Your task to perform on an android device: toggle improve location accuracy Image 0: 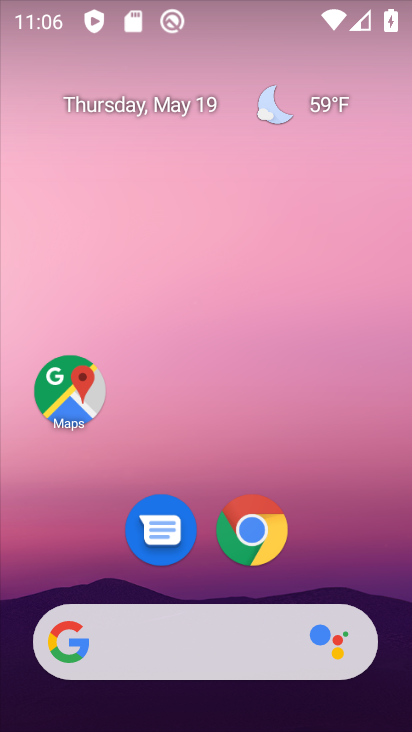
Step 0: drag from (313, 544) to (298, 153)
Your task to perform on an android device: toggle improve location accuracy Image 1: 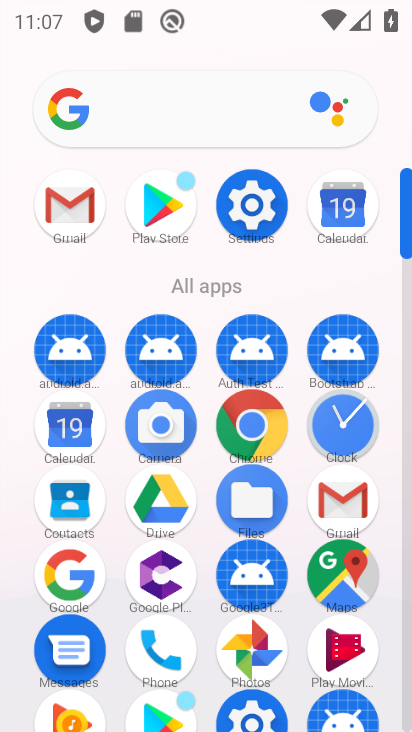
Step 1: click (246, 222)
Your task to perform on an android device: toggle improve location accuracy Image 2: 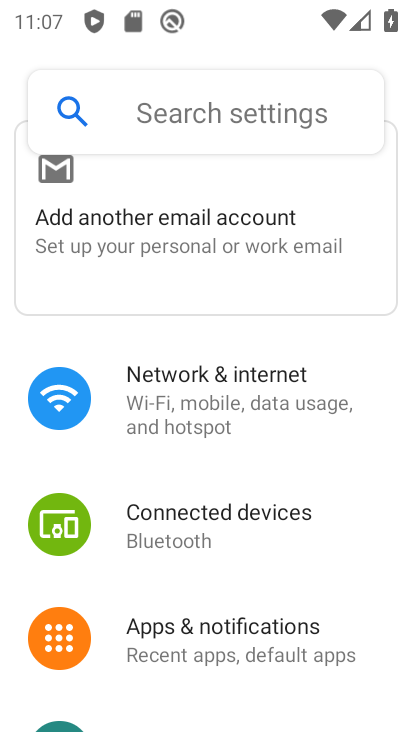
Step 2: drag from (233, 684) to (245, 332)
Your task to perform on an android device: toggle improve location accuracy Image 3: 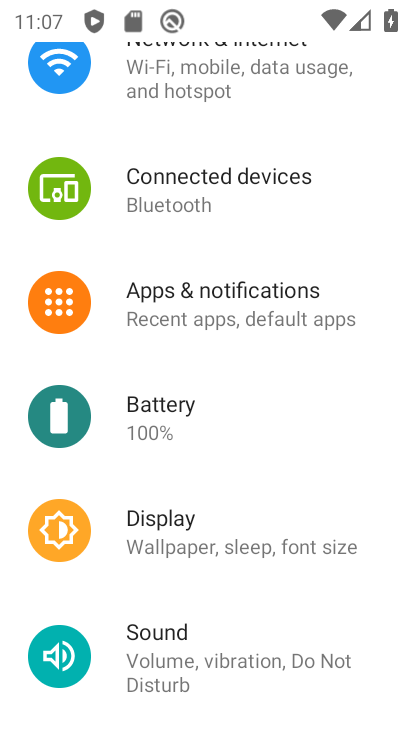
Step 3: drag from (232, 628) to (270, 222)
Your task to perform on an android device: toggle improve location accuracy Image 4: 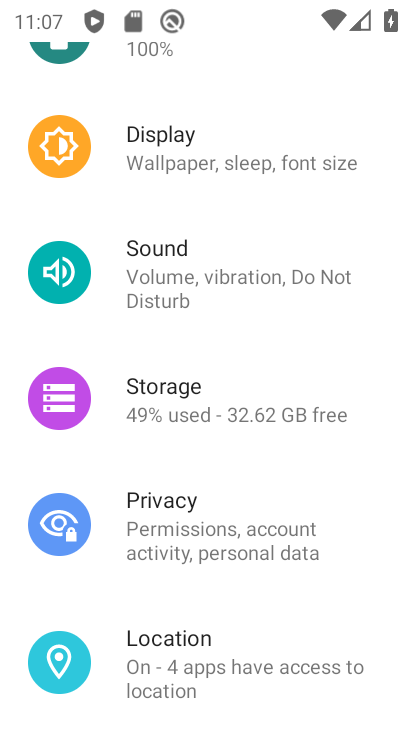
Step 4: drag from (263, 673) to (296, 340)
Your task to perform on an android device: toggle improve location accuracy Image 5: 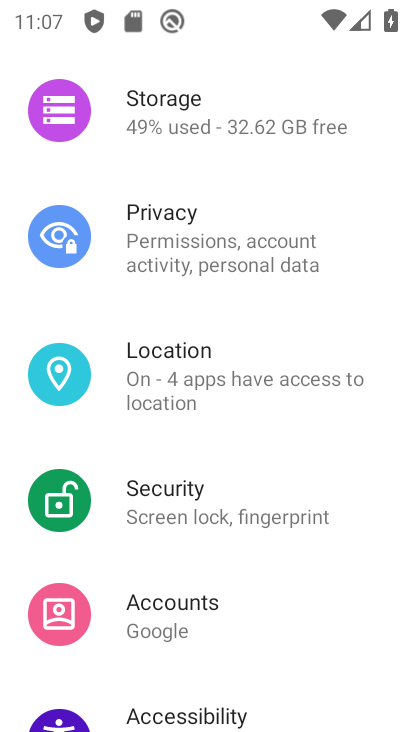
Step 5: click (274, 374)
Your task to perform on an android device: toggle improve location accuracy Image 6: 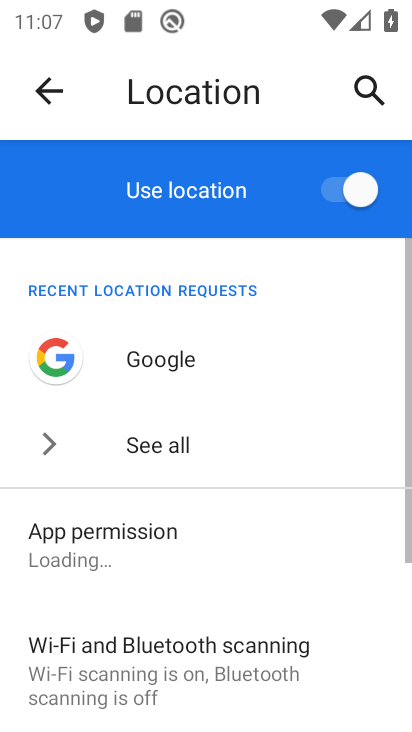
Step 6: drag from (236, 607) to (297, 209)
Your task to perform on an android device: toggle improve location accuracy Image 7: 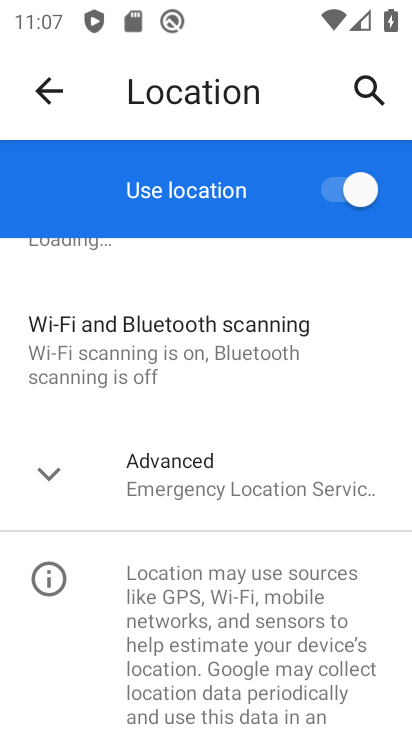
Step 7: drag from (316, 642) to (308, 326)
Your task to perform on an android device: toggle improve location accuracy Image 8: 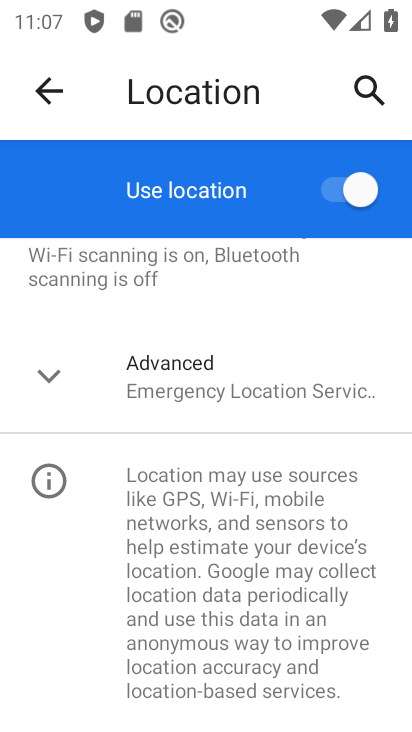
Step 8: click (275, 384)
Your task to perform on an android device: toggle improve location accuracy Image 9: 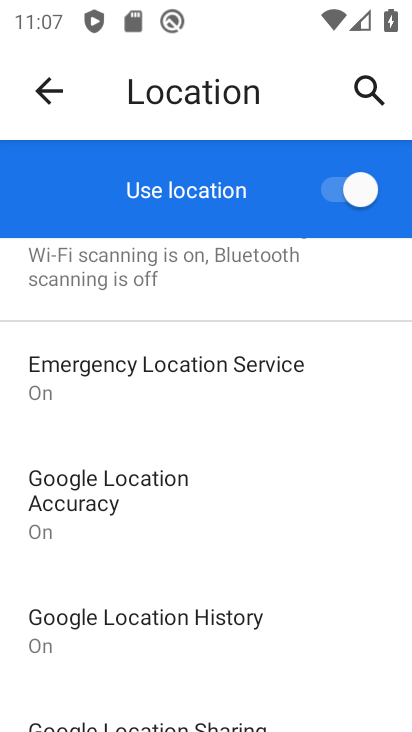
Step 9: drag from (260, 628) to (297, 339)
Your task to perform on an android device: toggle improve location accuracy Image 10: 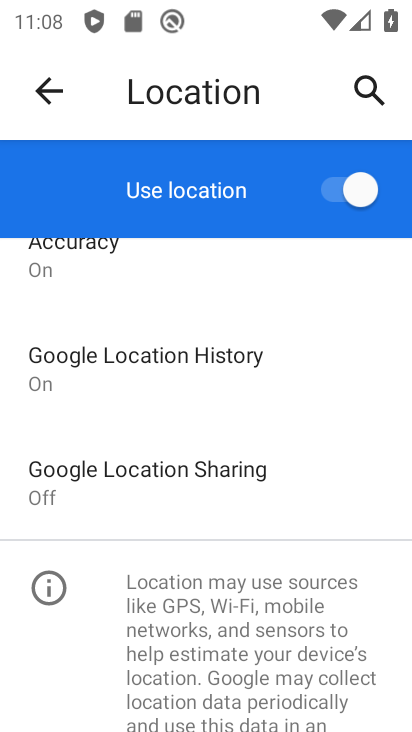
Step 10: drag from (280, 351) to (278, 447)
Your task to perform on an android device: toggle improve location accuracy Image 11: 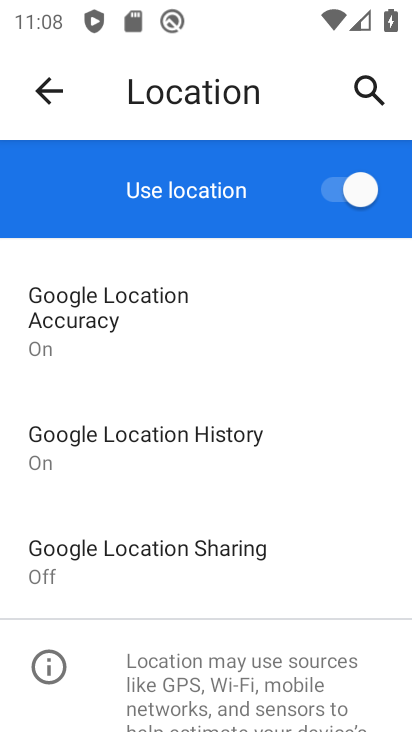
Step 11: click (105, 297)
Your task to perform on an android device: toggle improve location accuracy Image 12: 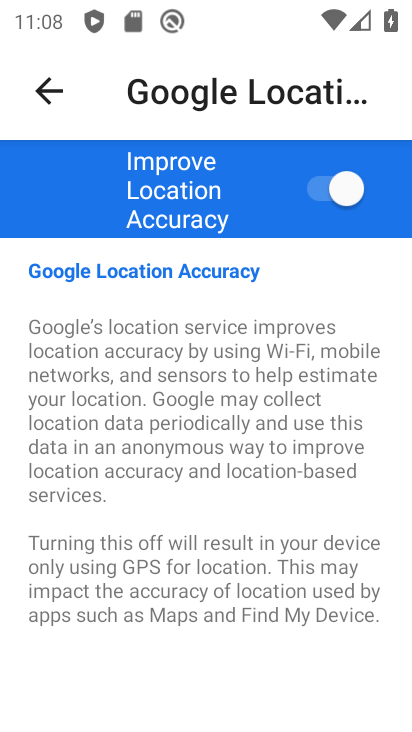
Step 12: click (344, 184)
Your task to perform on an android device: toggle improve location accuracy Image 13: 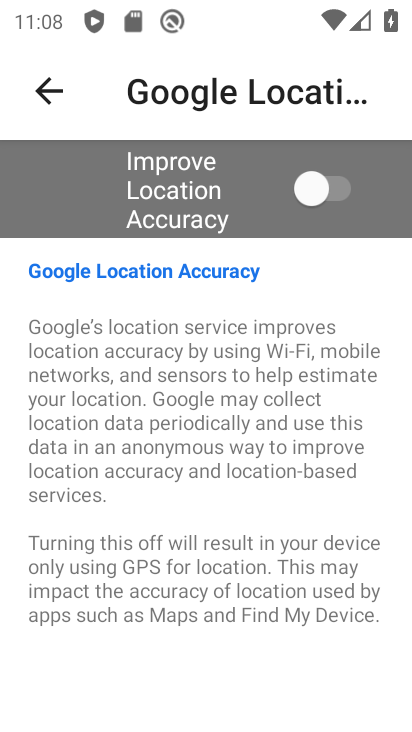
Step 13: task complete